Your task to perform on an android device: move a message to another label in the gmail app Image 0: 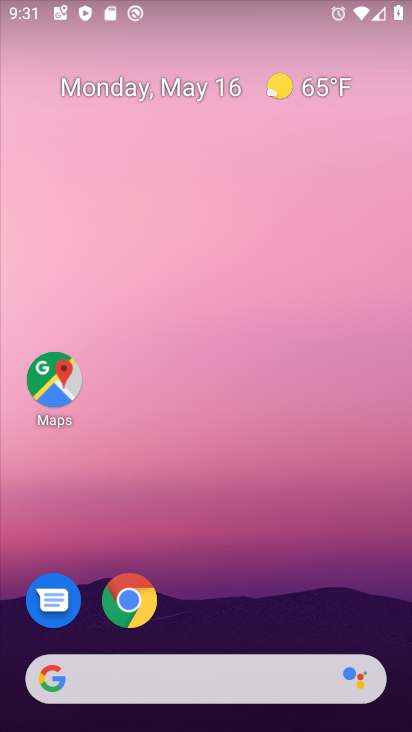
Step 0: drag from (198, 620) to (274, 84)
Your task to perform on an android device: move a message to another label in the gmail app Image 1: 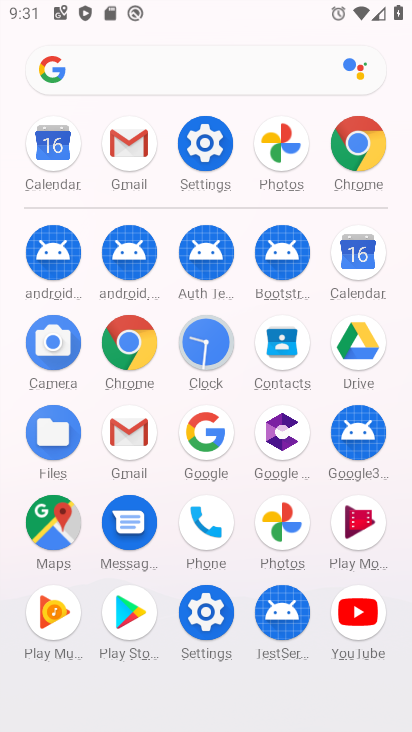
Step 1: click (147, 419)
Your task to perform on an android device: move a message to another label in the gmail app Image 2: 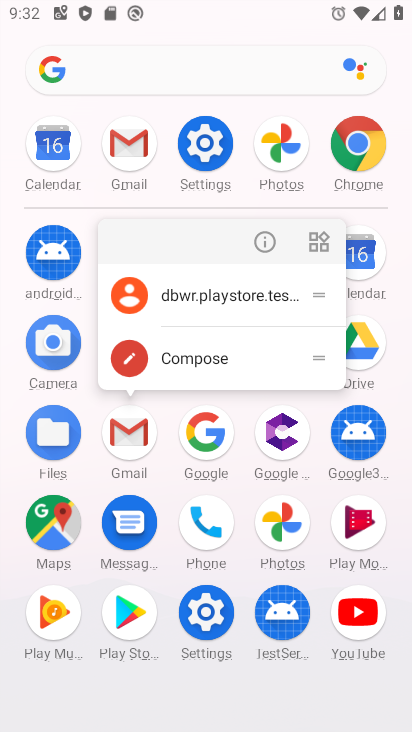
Step 2: click (256, 287)
Your task to perform on an android device: move a message to another label in the gmail app Image 3: 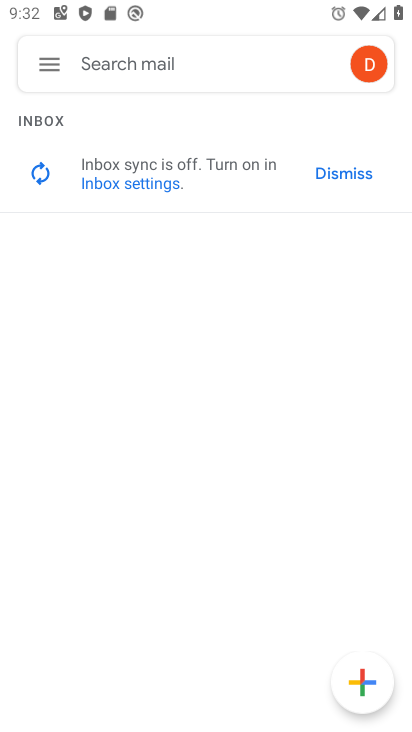
Step 3: click (47, 80)
Your task to perform on an android device: move a message to another label in the gmail app Image 4: 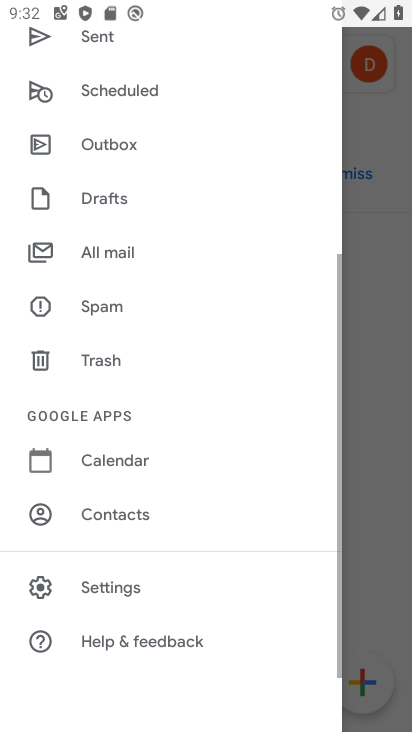
Step 4: task complete